Your task to perform on an android device: Open Maps and search for coffee Image 0: 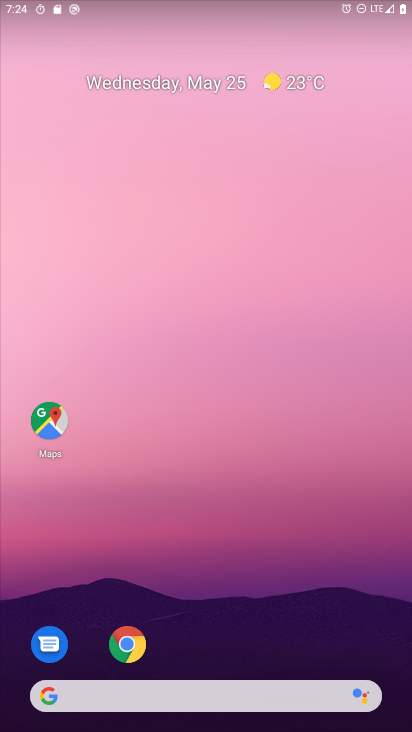
Step 0: drag from (408, 649) to (278, 135)
Your task to perform on an android device: Open Maps and search for coffee Image 1: 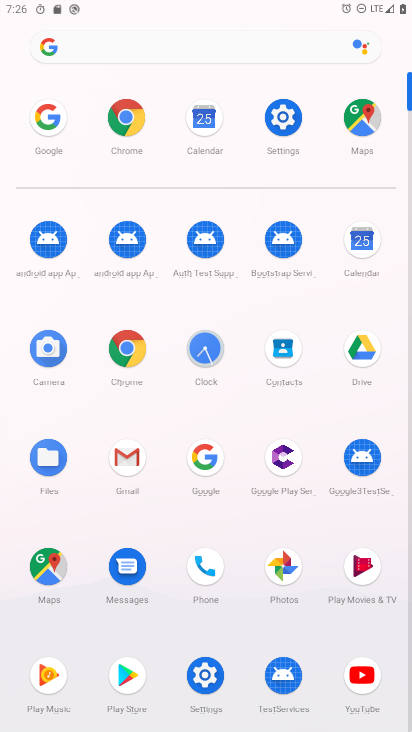
Step 1: click (41, 566)
Your task to perform on an android device: Open Maps and search for coffee Image 2: 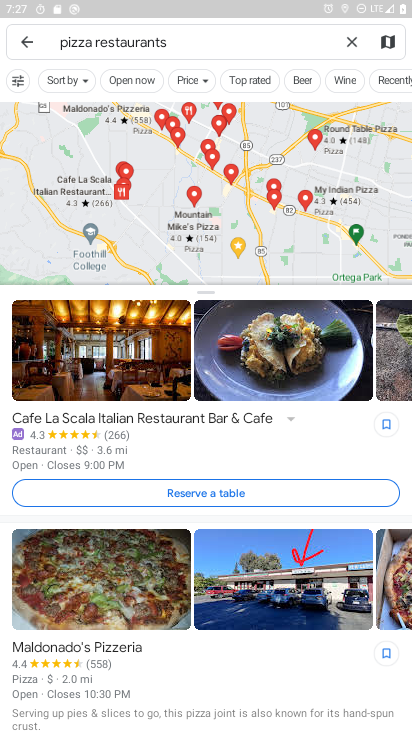
Step 2: click (352, 43)
Your task to perform on an android device: Open Maps and search for coffee Image 3: 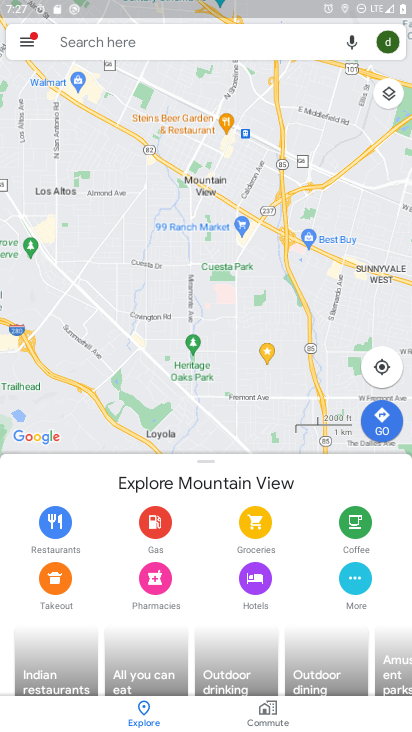
Step 3: click (197, 54)
Your task to perform on an android device: Open Maps and search for coffee Image 4: 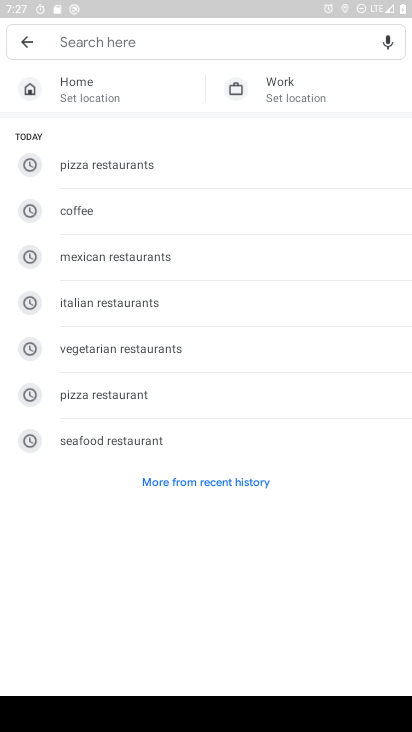
Step 4: click (128, 220)
Your task to perform on an android device: Open Maps and search for coffee Image 5: 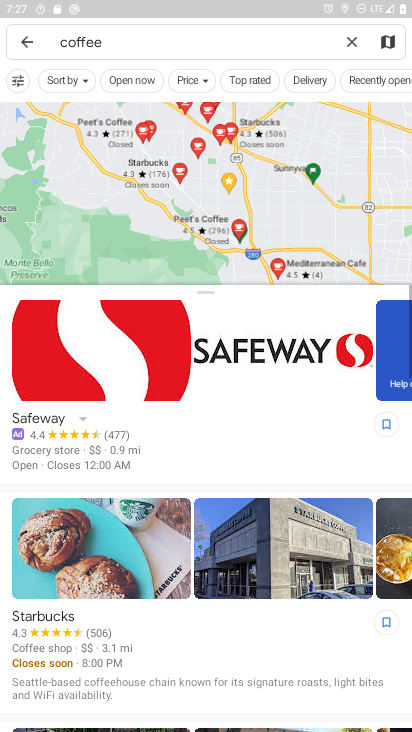
Step 5: task complete